Your task to perform on an android device: toggle sleep mode Image 0: 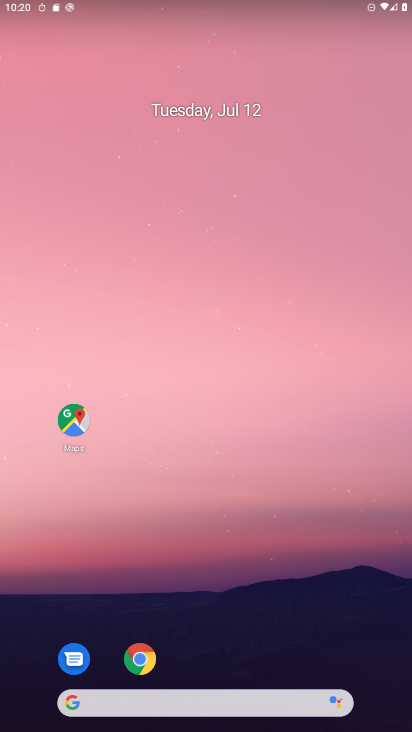
Step 0: drag from (176, 709) to (175, 606)
Your task to perform on an android device: toggle sleep mode Image 1: 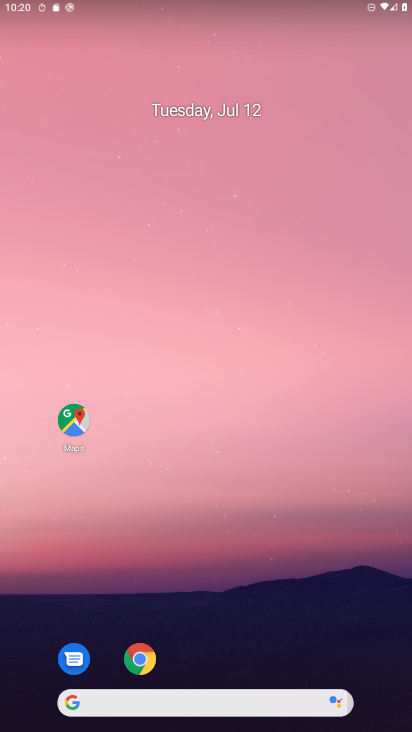
Step 1: drag from (134, 204) to (121, 119)
Your task to perform on an android device: toggle sleep mode Image 2: 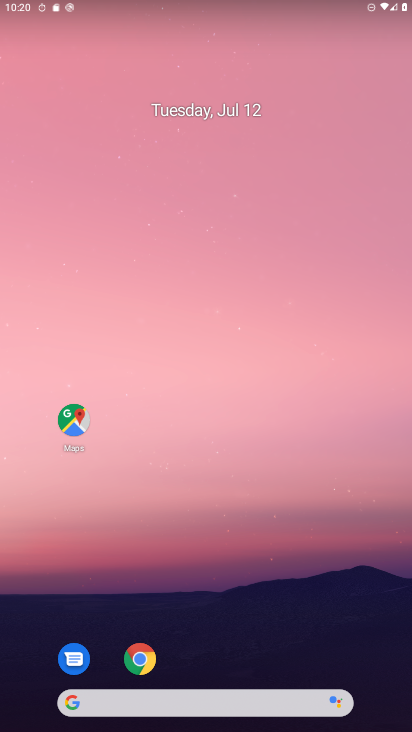
Step 2: drag from (226, 725) to (178, 25)
Your task to perform on an android device: toggle sleep mode Image 3: 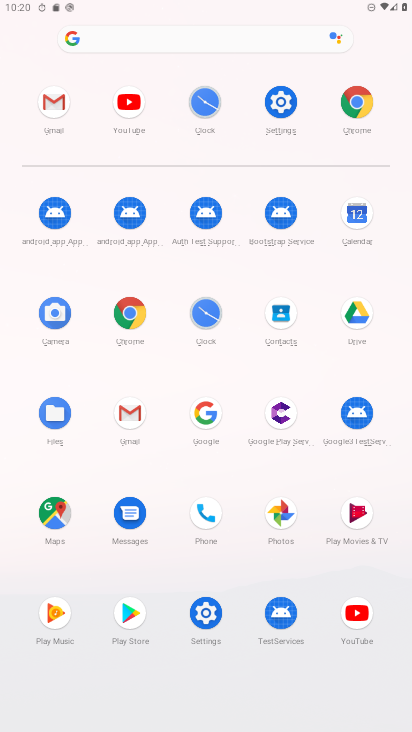
Step 3: click (289, 104)
Your task to perform on an android device: toggle sleep mode Image 4: 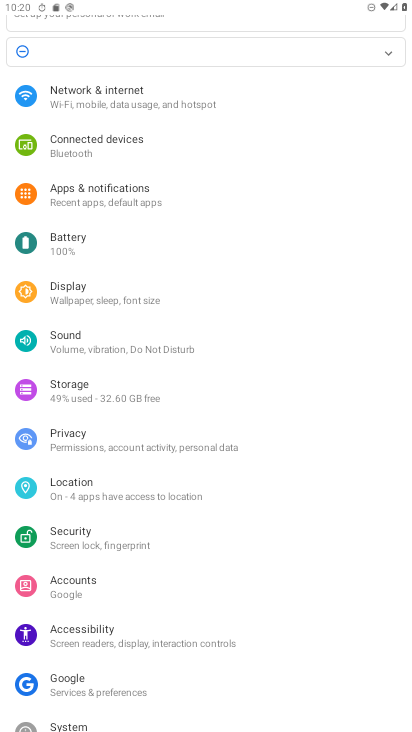
Step 4: drag from (116, 701) to (92, 253)
Your task to perform on an android device: toggle sleep mode Image 5: 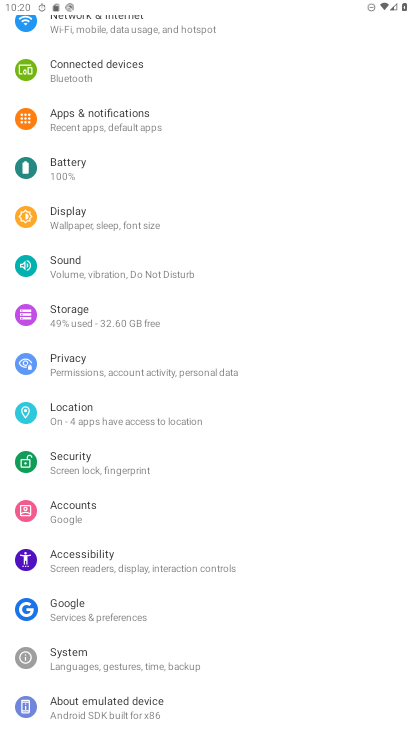
Step 5: click (95, 228)
Your task to perform on an android device: toggle sleep mode Image 6: 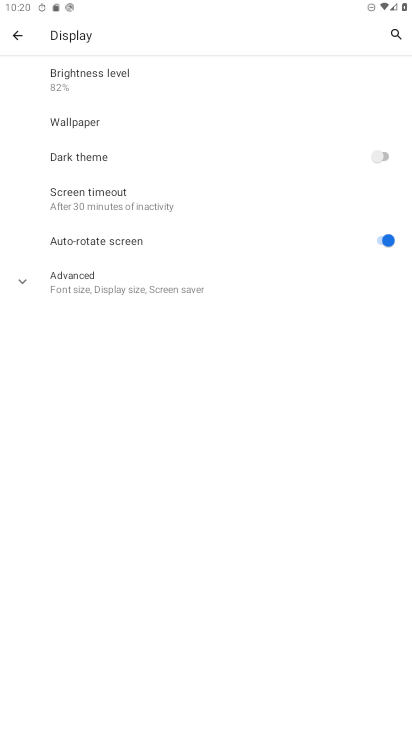
Step 6: task complete